Your task to perform on an android device: Open calendar and show me the second week of next month Image 0: 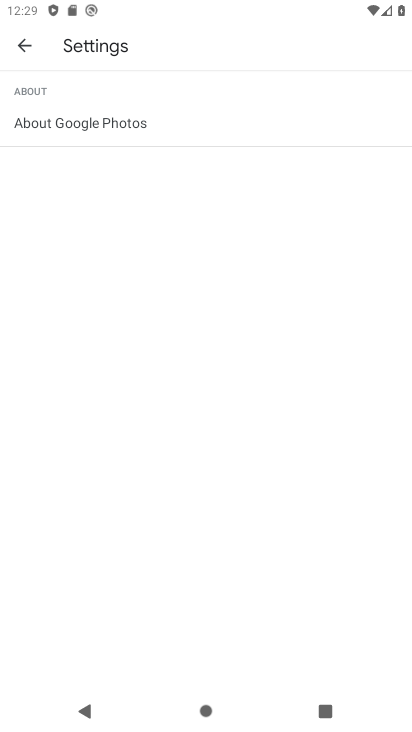
Step 0: press home button
Your task to perform on an android device: Open calendar and show me the second week of next month Image 1: 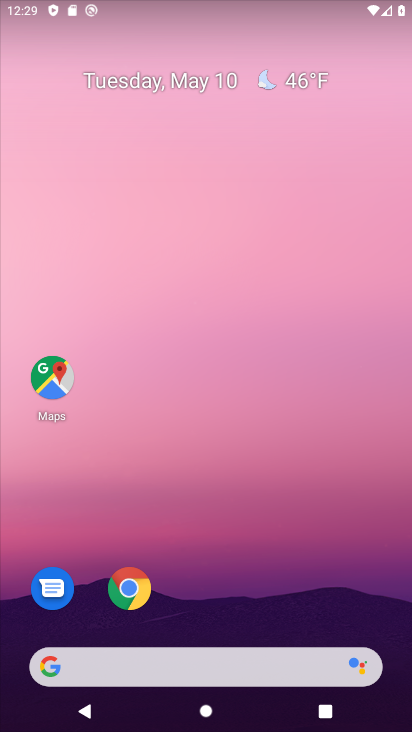
Step 1: drag from (216, 636) to (370, 5)
Your task to perform on an android device: Open calendar and show me the second week of next month Image 2: 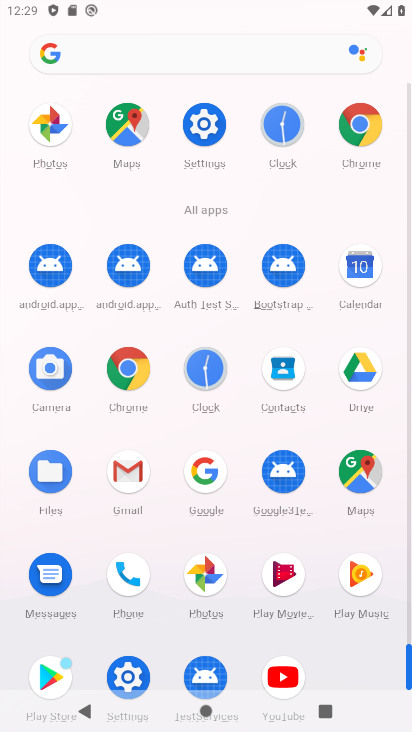
Step 2: click (349, 247)
Your task to perform on an android device: Open calendar and show me the second week of next month Image 3: 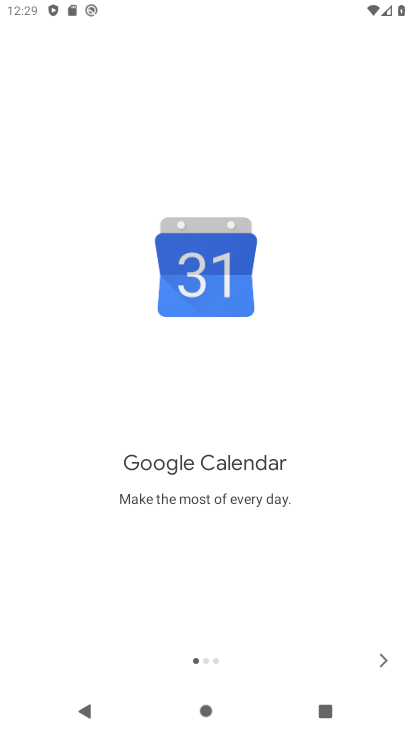
Step 3: click (387, 644)
Your task to perform on an android device: Open calendar and show me the second week of next month Image 4: 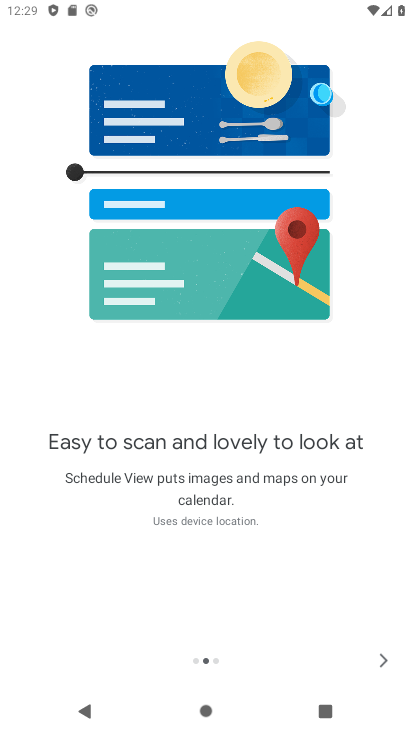
Step 4: click (387, 645)
Your task to perform on an android device: Open calendar and show me the second week of next month Image 5: 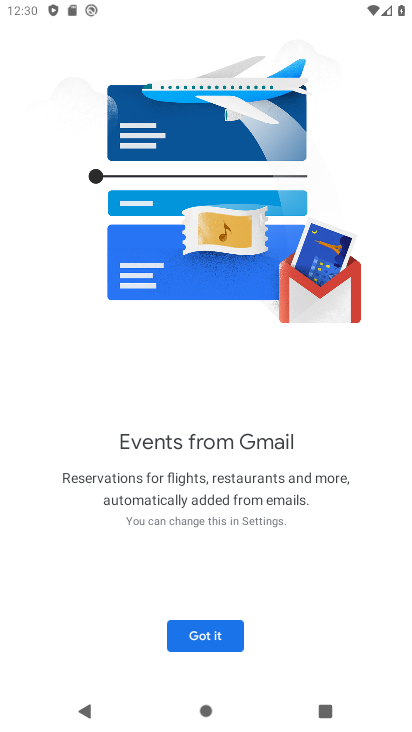
Step 5: click (191, 626)
Your task to perform on an android device: Open calendar and show me the second week of next month Image 6: 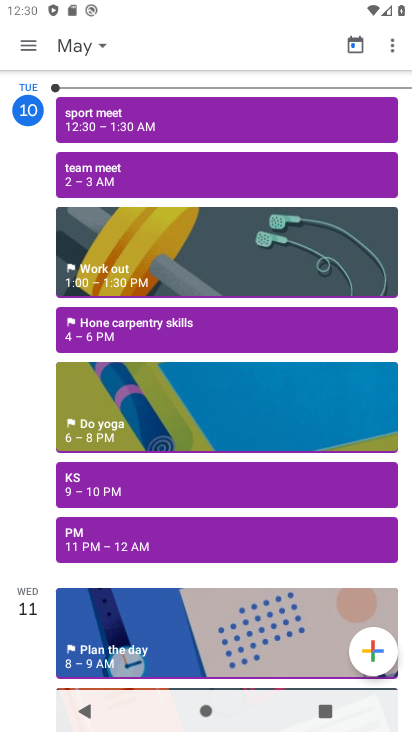
Step 6: click (27, 46)
Your task to perform on an android device: Open calendar and show me the second week of next month Image 7: 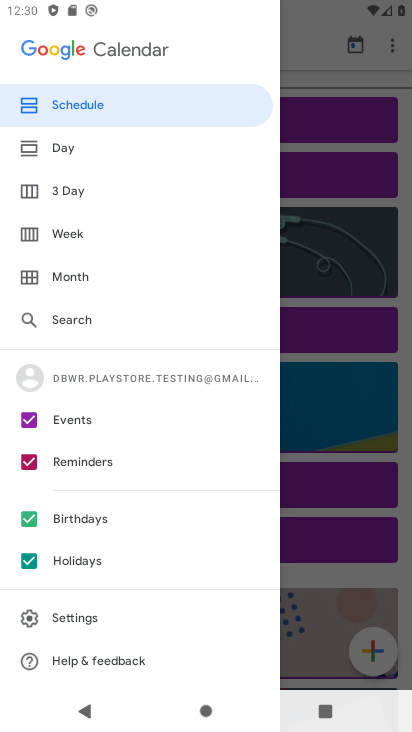
Step 7: click (60, 238)
Your task to perform on an android device: Open calendar and show me the second week of next month Image 8: 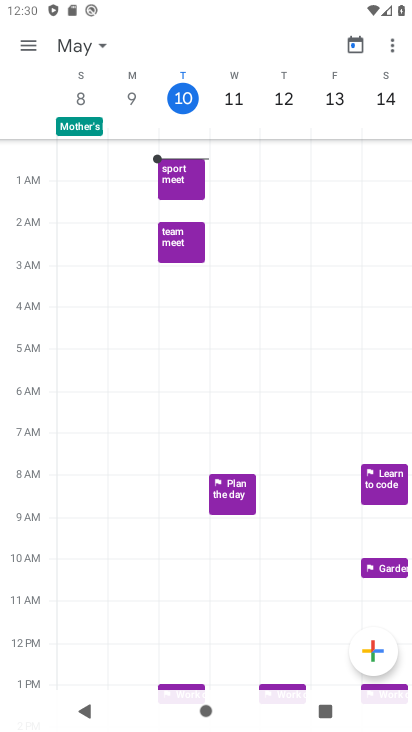
Step 8: task complete